Your task to perform on an android device: What's the news this evening? Image 0: 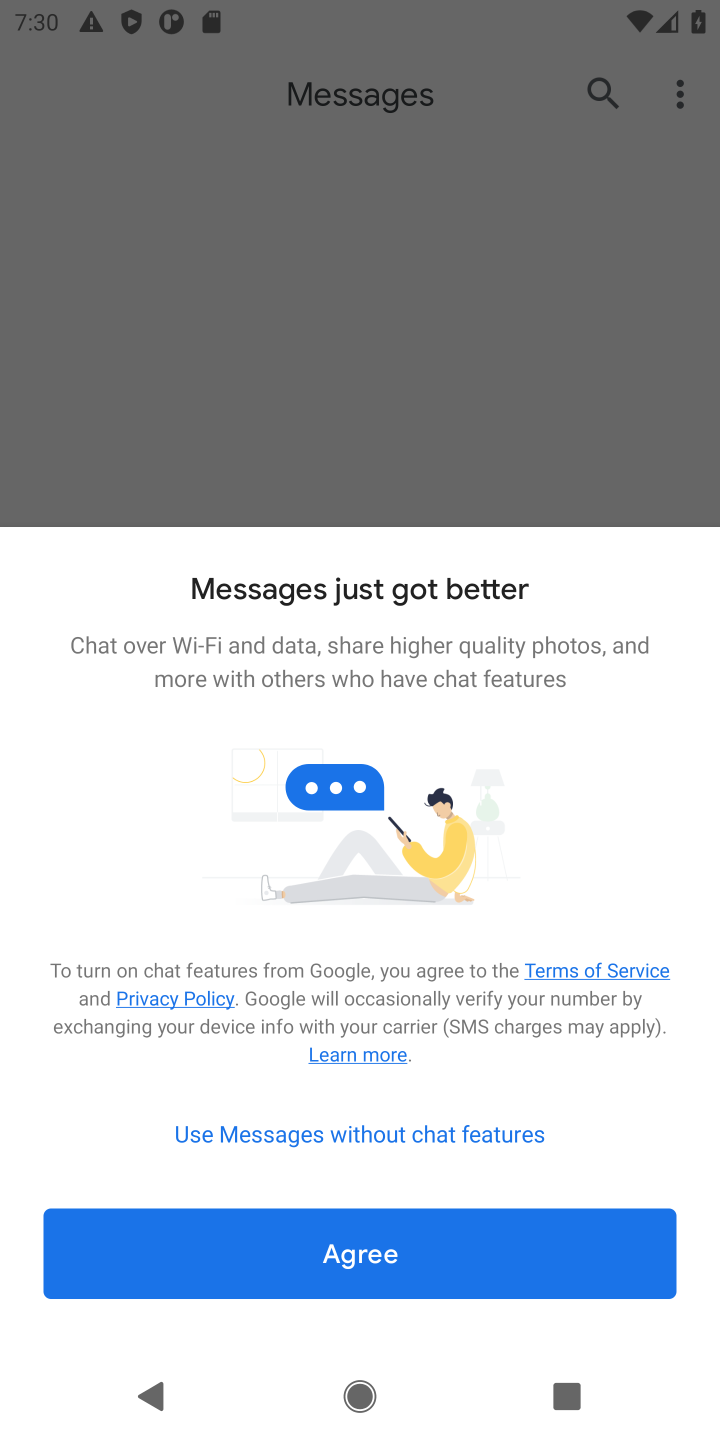
Step 0: press home button
Your task to perform on an android device: What's the news this evening? Image 1: 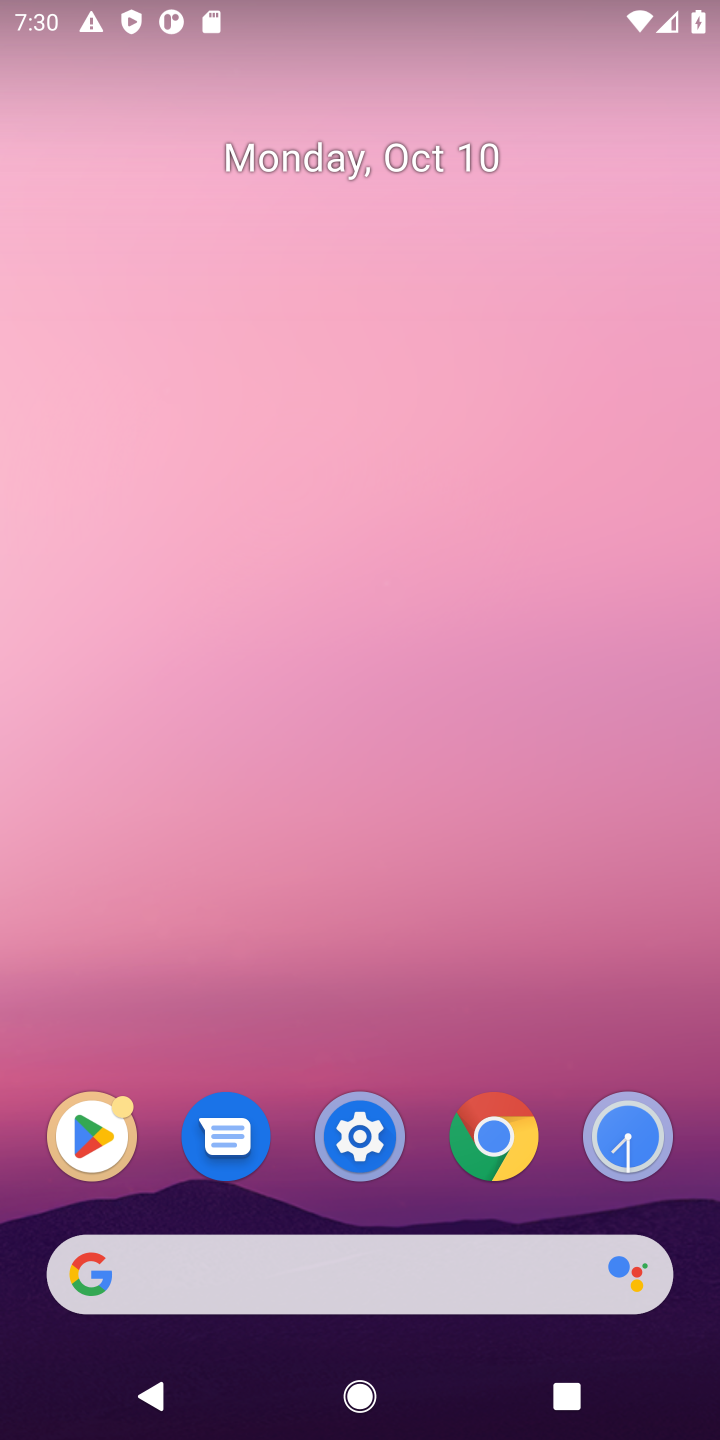
Step 1: drag from (467, 1237) to (486, 196)
Your task to perform on an android device: What's the news this evening? Image 2: 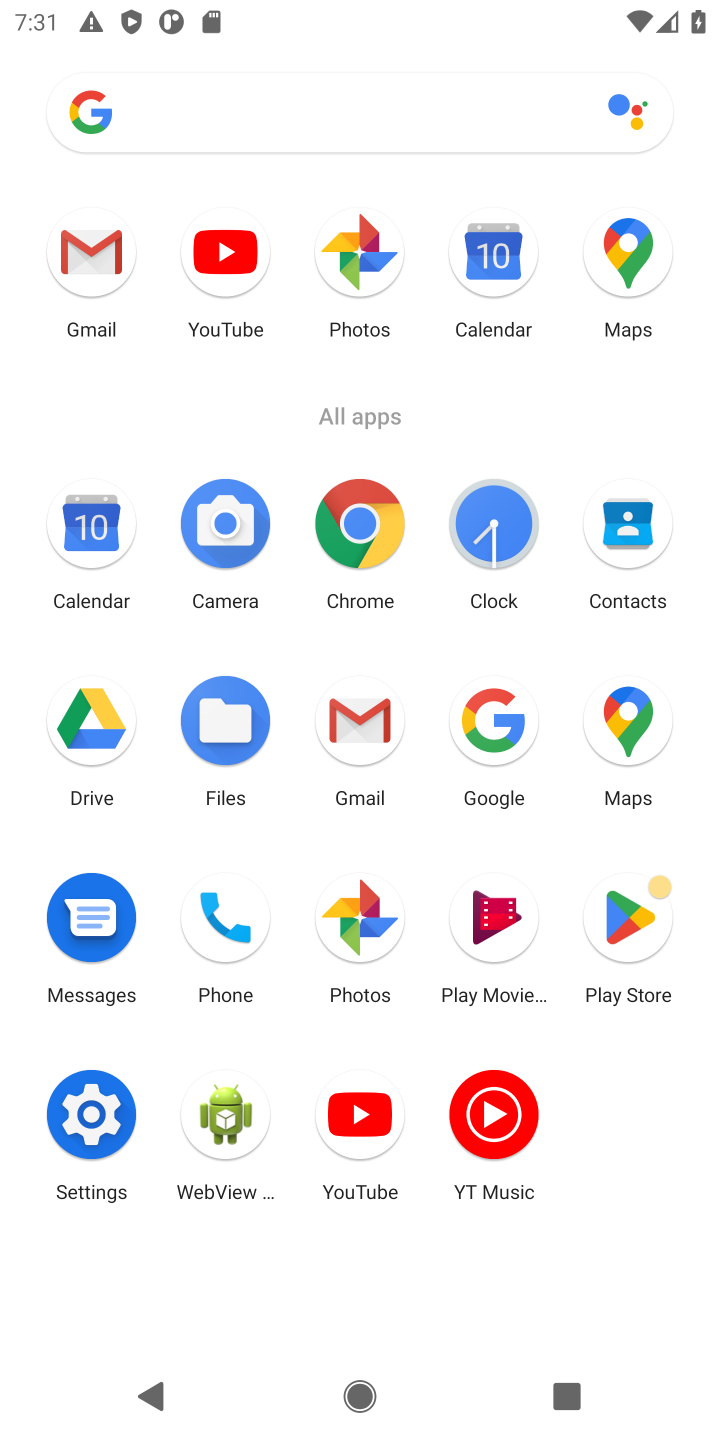
Step 2: click (350, 524)
Your task to perform on an android device: What's the news this evening? Image 3: 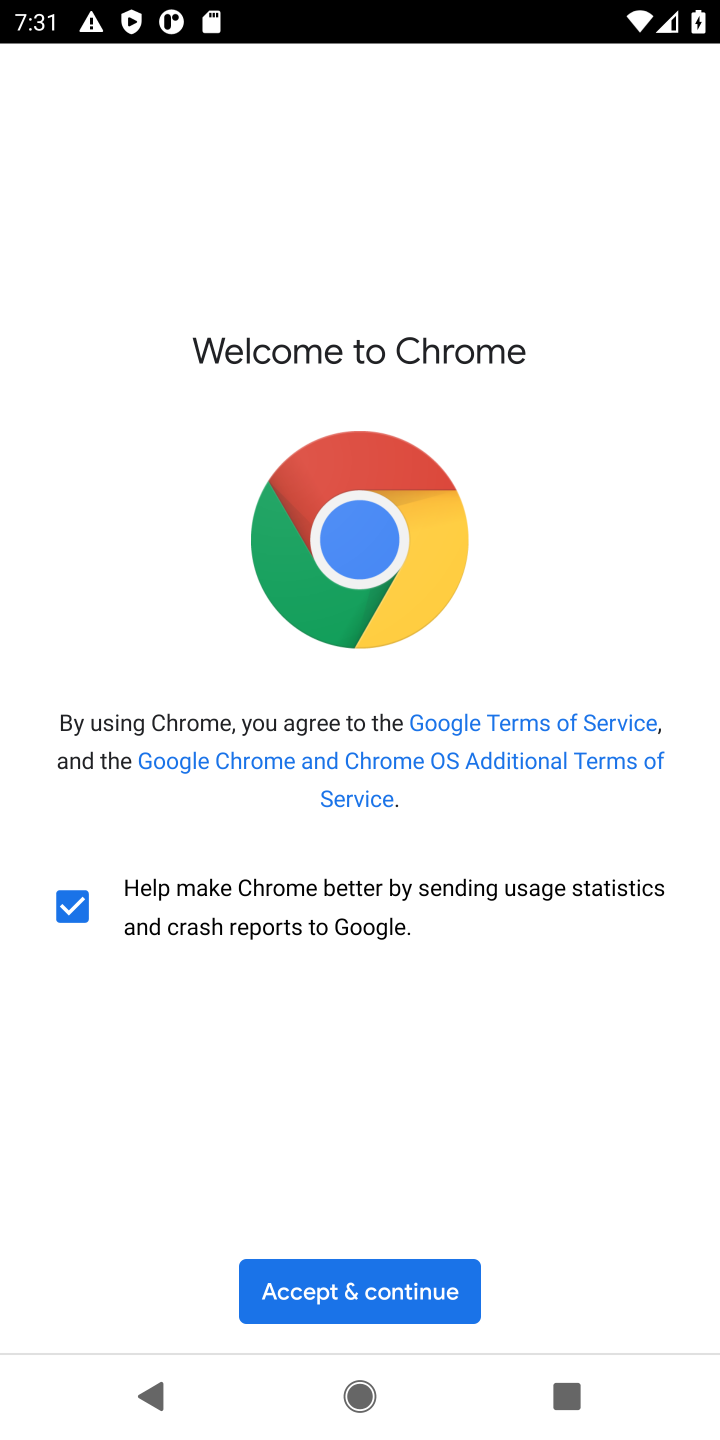
Step 3: click (407, 1278)
Your task to perform on an android device: What's the news this evening? Image 4: 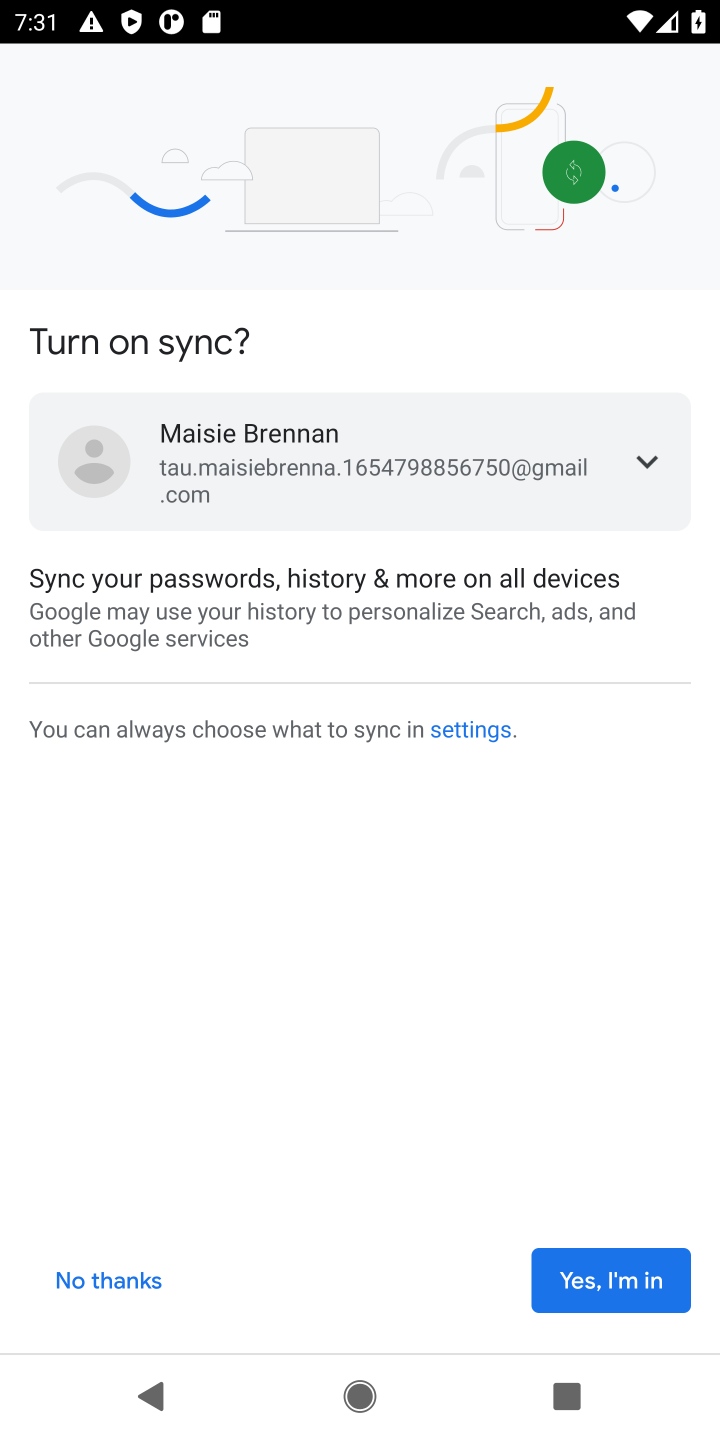
Step 4: click (666, 1269)
Your task to perform on an android device: What's the news this evening? Image 5: 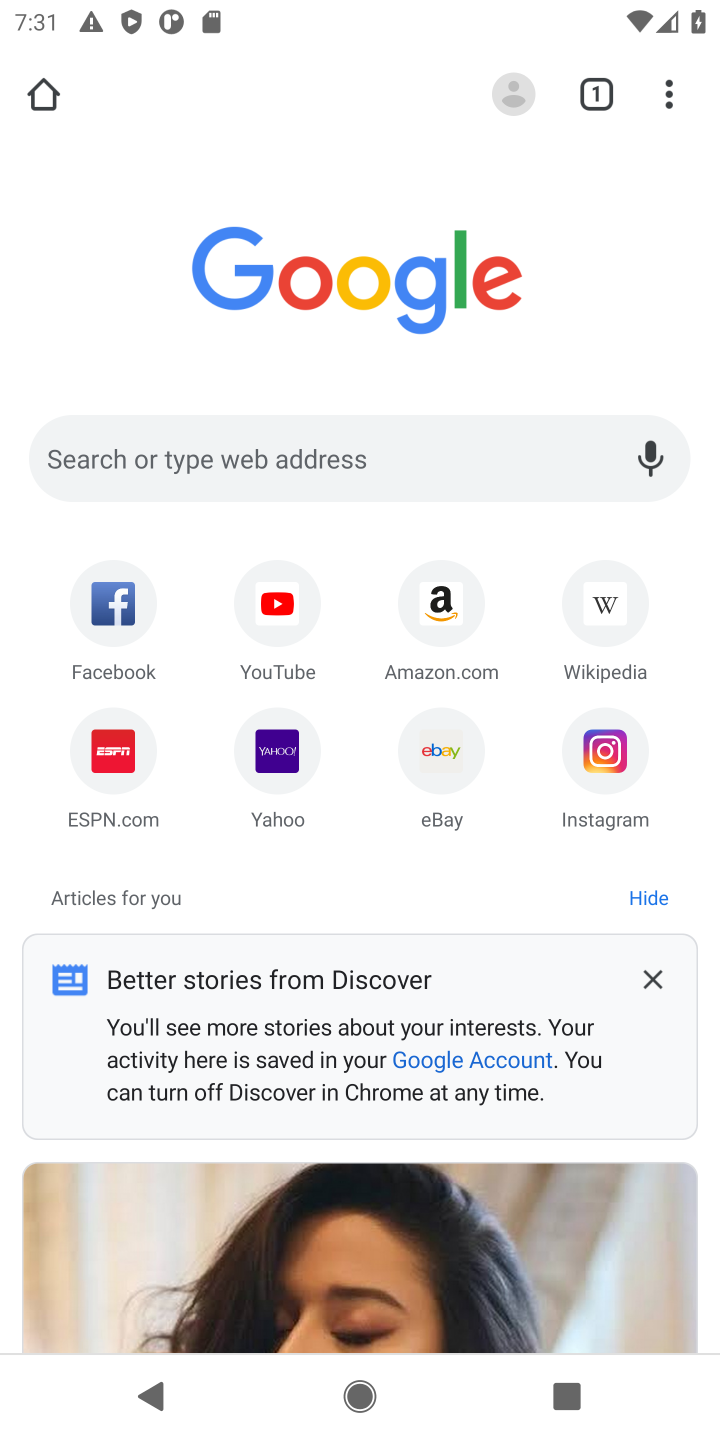
Step 5: task complete